Your task to perform on an android device: check google app version Image 0: 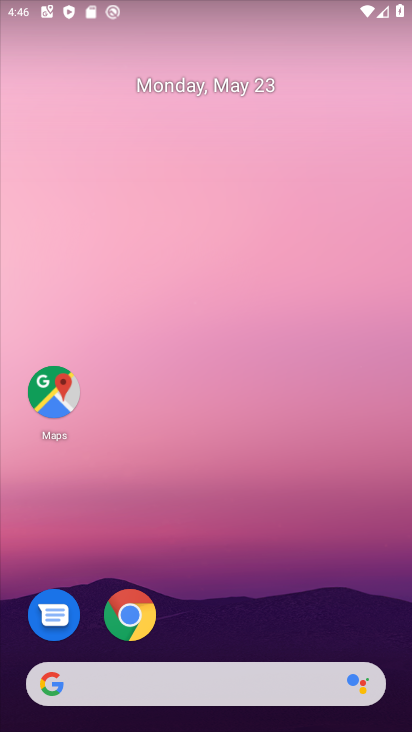
Step 0: drag from (270, 580) to (289, 56)
Your task to perform on an android device: check google app version Image 1: 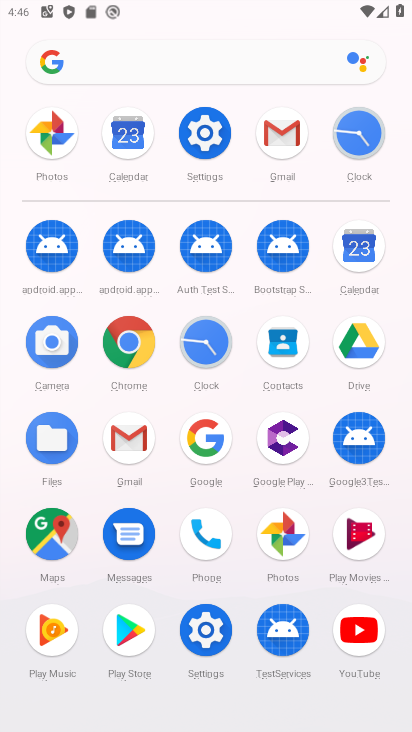
Step 1: click (212, 438)
Your task to perform on an android device: check google app version Image 2: 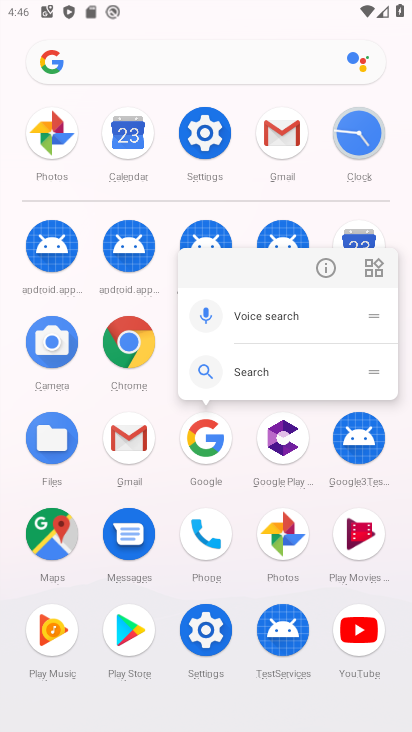
Step 2: click (308, 272)
Your task to perform on an android device: check google app version Image 3: 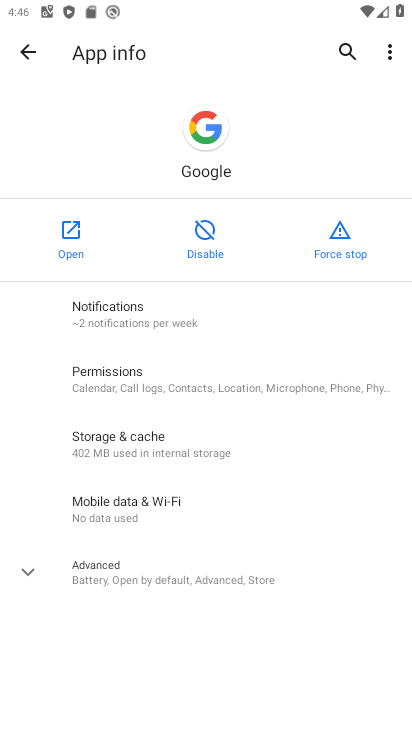
Step 3: drag from (171, 657) to (199, 80)
Your task to perform on an android device: check google app version Image 4: 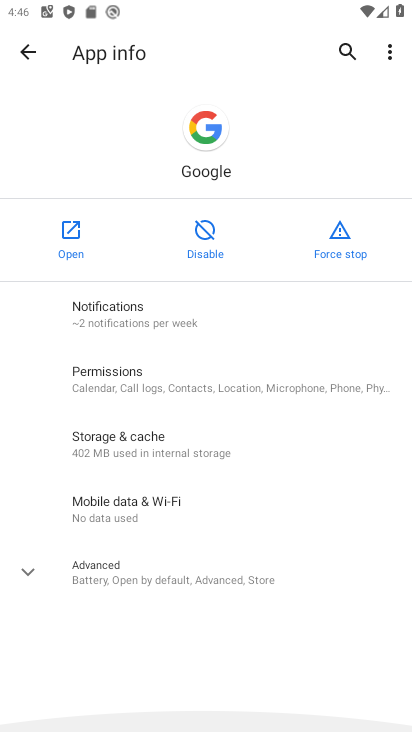
Step 4: click (167, 584)
Your task to perform on an android device: check google app version Image 5: 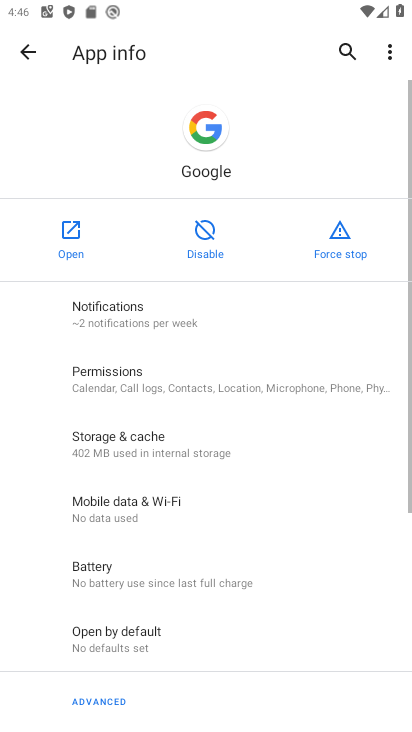
Step 5: task complete